Your task to perform on an android device: Open the Play Movies app and select the watchlist tab. Image 0: 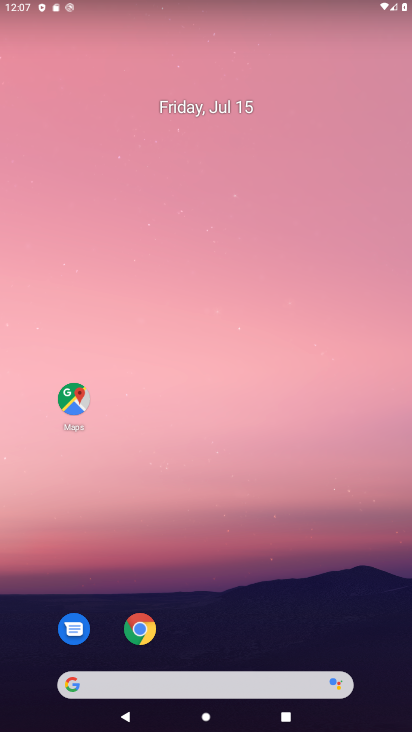
Step 0: drag from (342, 622) to (156, 1)
Your task to perform on an android device: Open the Play Movies app and select the watchlist tab. Image 1: 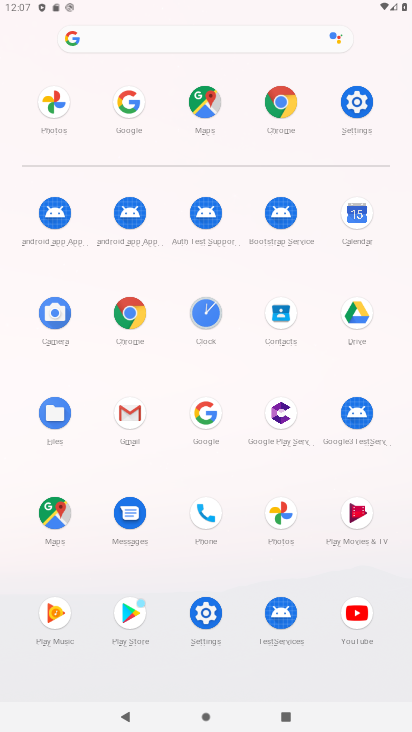
Step 1: click (359, 521)
Your task to perform on an android device: Open the Play Movies app and select the watchlist tab. Image 2: 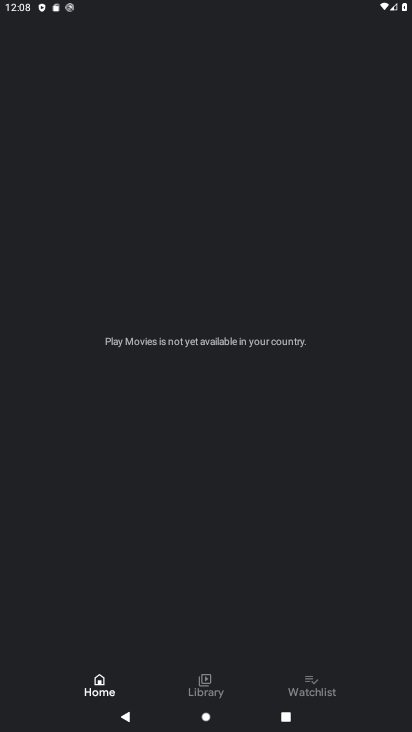
Step 2: click (319, 692)
Your task to perform on an android device: Open the Play Movies app and select the watchlist tab. Image 3: 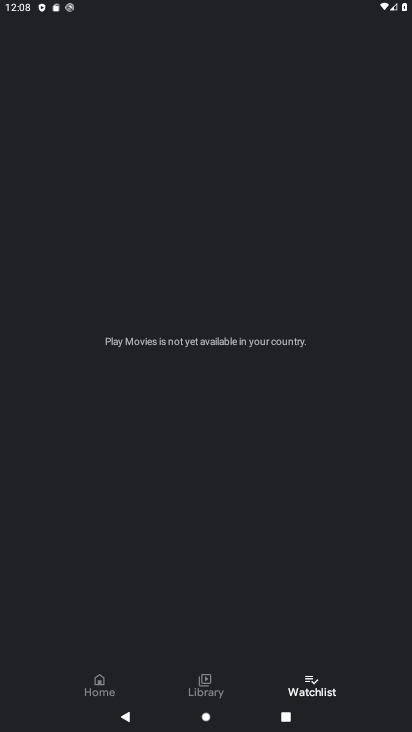
Step 3: task complete